Your task to perform on an android device: Open network settings Image 0: 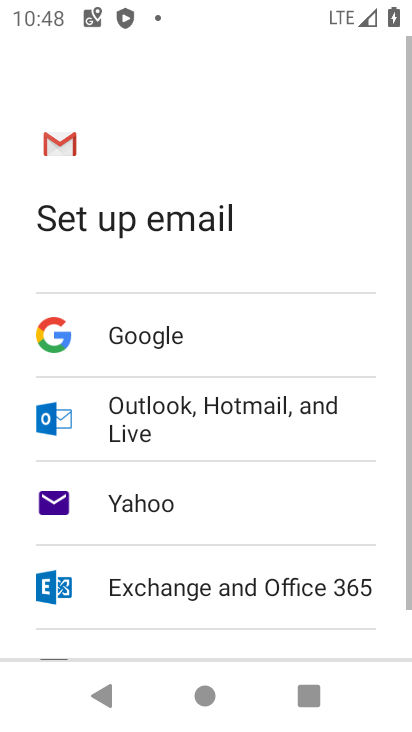
Step 0: press back button
Your task to perform on an android device: Open network settings Image 1: 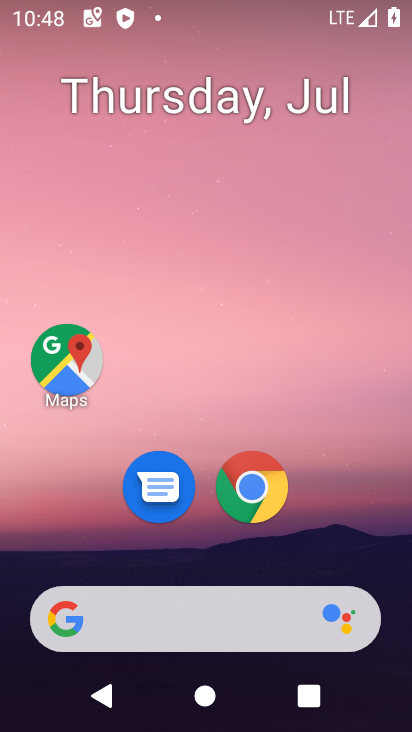
Step 1: drag from (172, 532) to (287, 11)
Your task to perform on an android device: Open network settings Image 2: 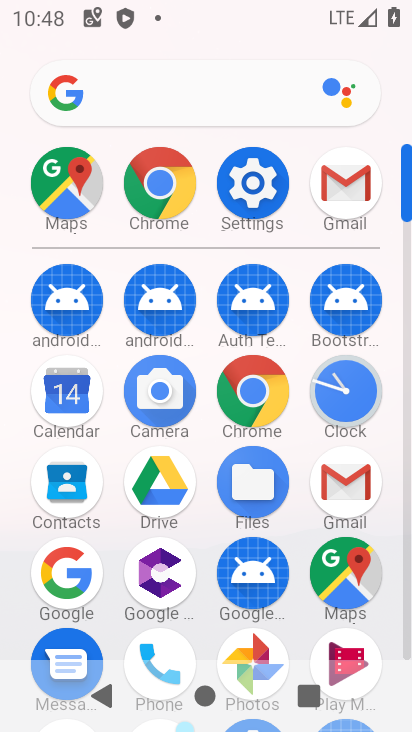
Step 2: click (265, 190)
Your task to perform on an android device: Open network settings Image 3: 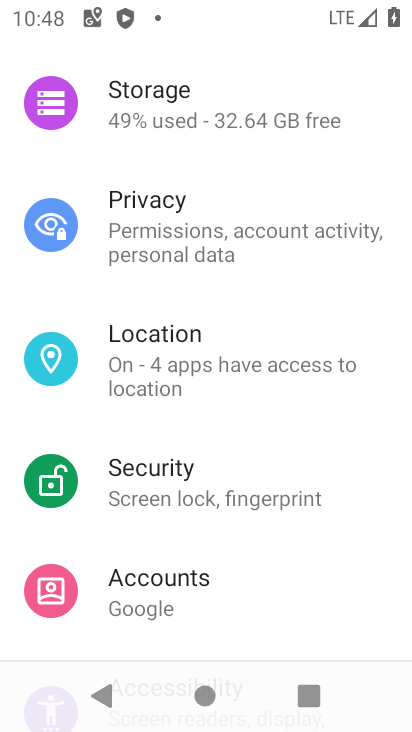
Step 3: drag from (269, 221) to (207, 728)
Your task to perform on an android device: Open network settings Image 4: 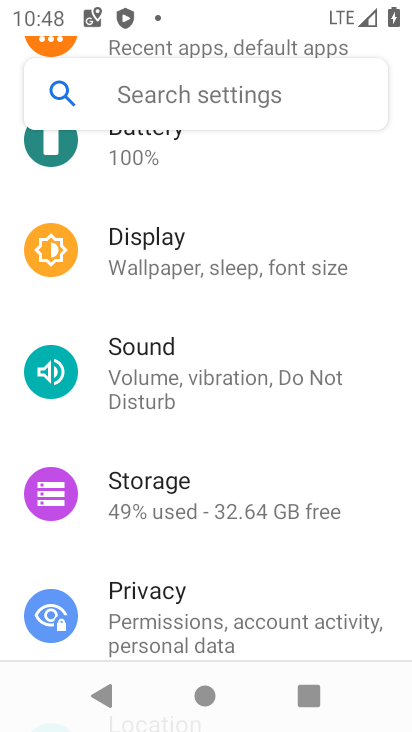
Step 4: drag from (175, 193) to (124, 609)
Your task to perform on an android device: Open network settings Image 5: 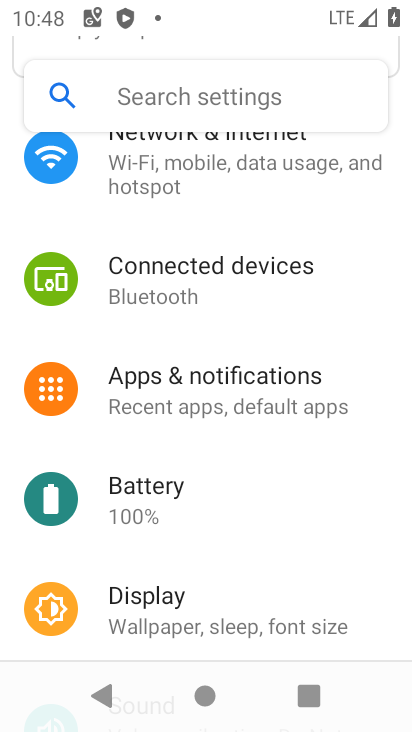
Step 5: click (191, 150)
Your task to perform on an android device: Open network settings Image 6: 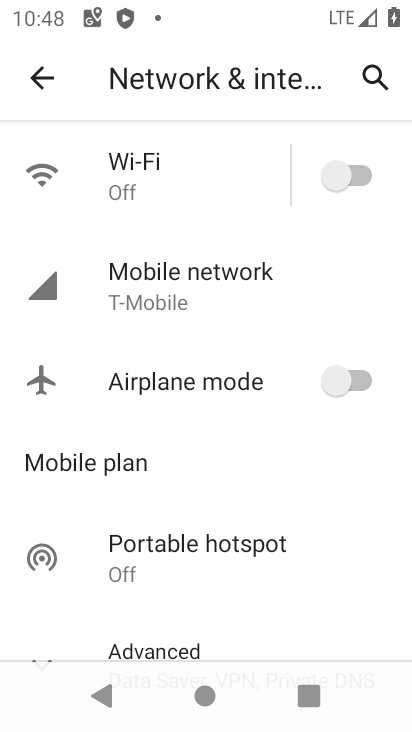
Step 6: task complete